Your task to perform on an android device: find which apps use the phone's location Image 0: 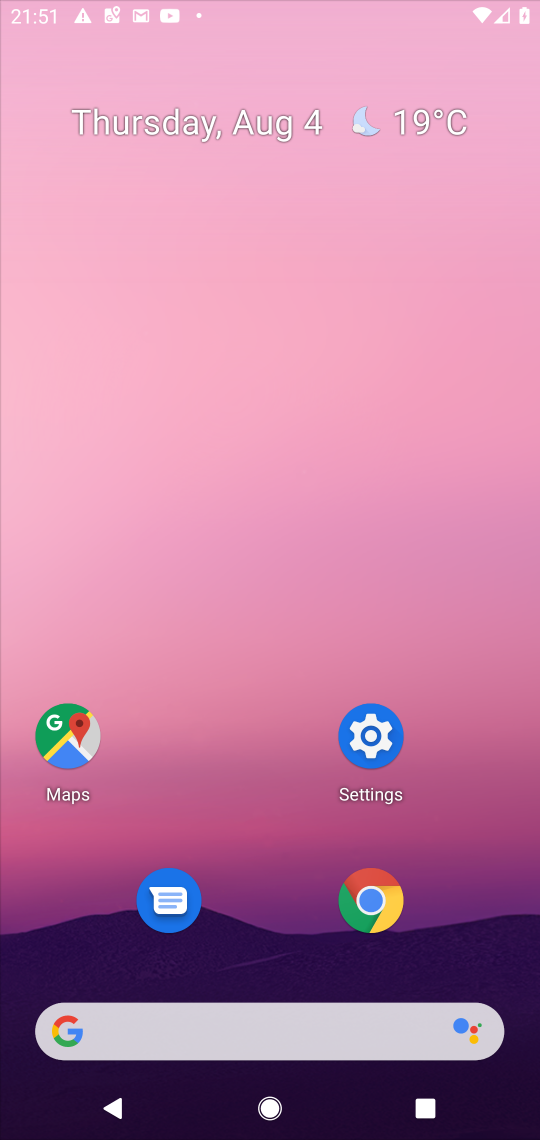
Step 0: press home button
Your task to perform on an android device: find which apps use the phone's location Image 1: 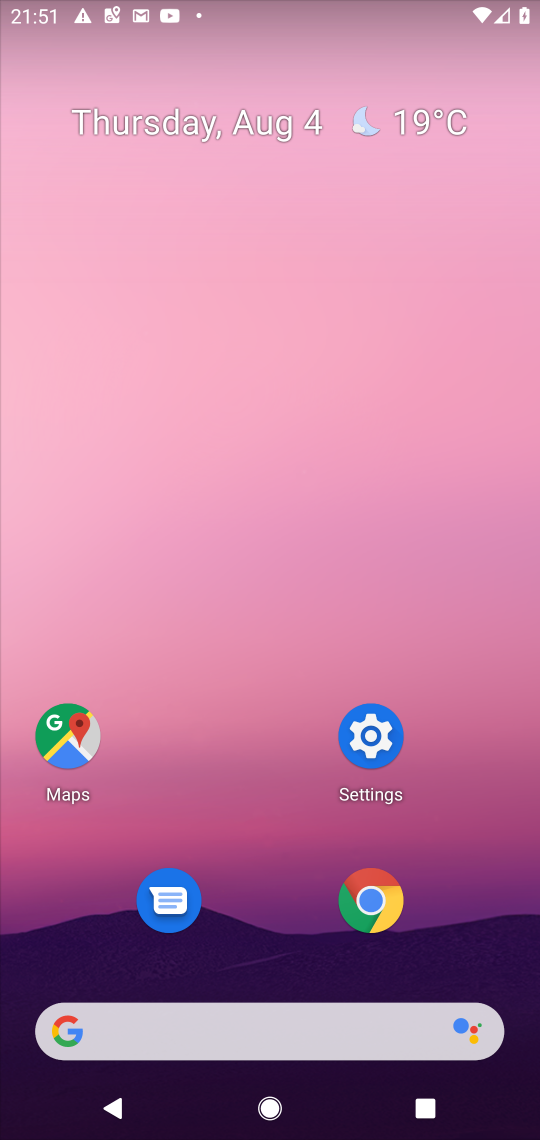
Step 1: click (373, 730)
Your task to perform on an android device: find which apps use the phone's location Image 2: 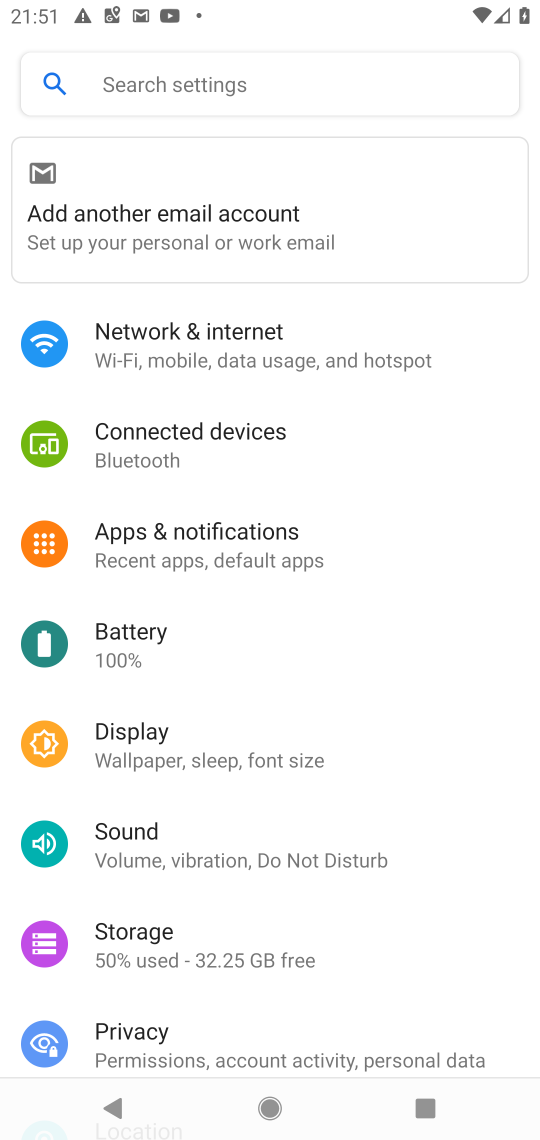
Step 2: drag from (253, 971) to (369, 243)
Your task to perform on an android device: find which apps use the phone's location Image 3: 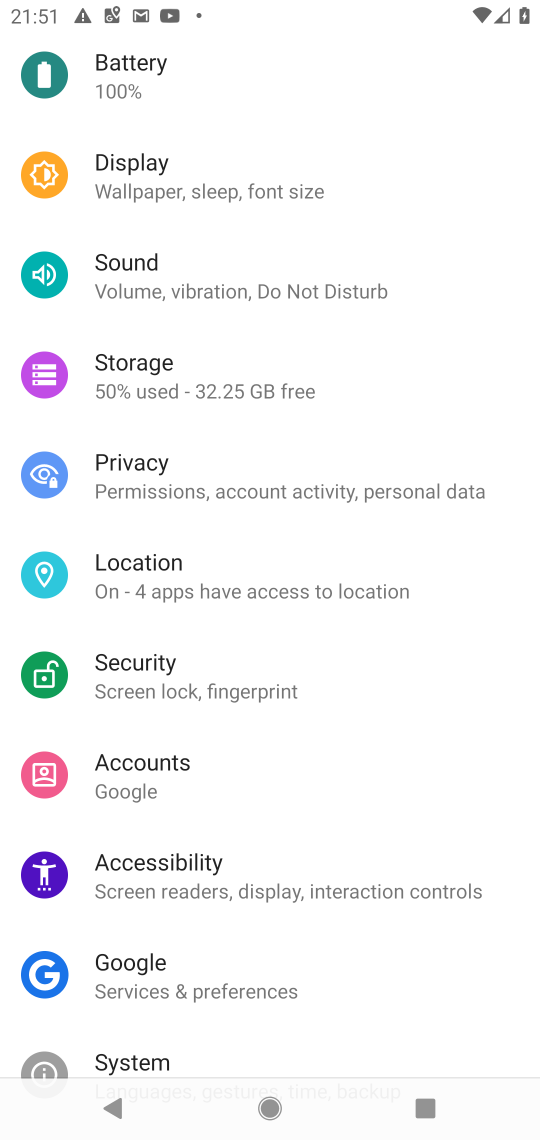
Step 3: click (204, 582)
Your task to perform on an android device: find which apps use the phone's location Image 4: 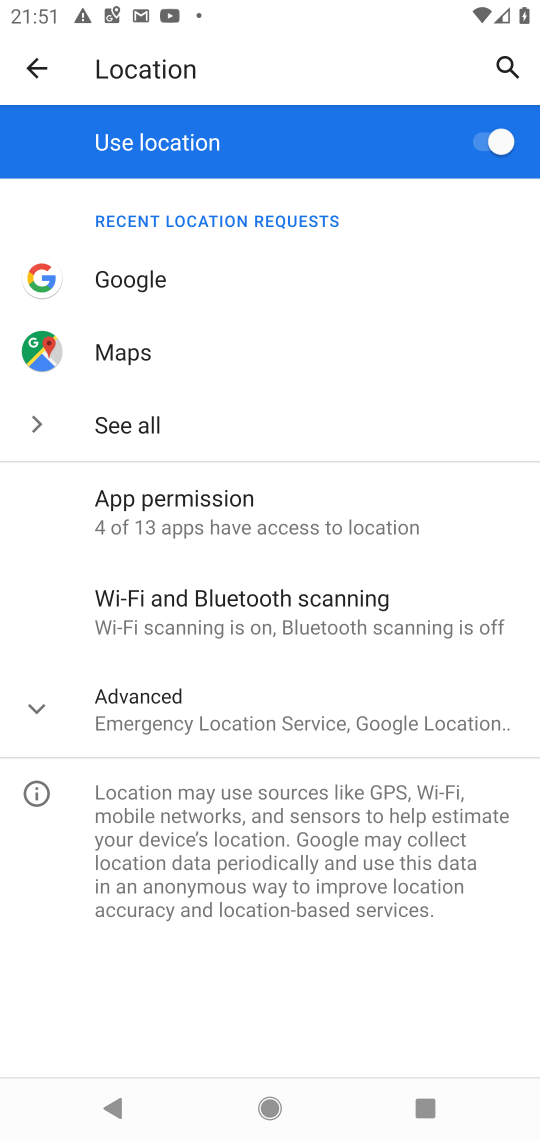
Step 4: click (182, 516)
Your task to perform on an android device: find which apps use the phone's location Image 5: 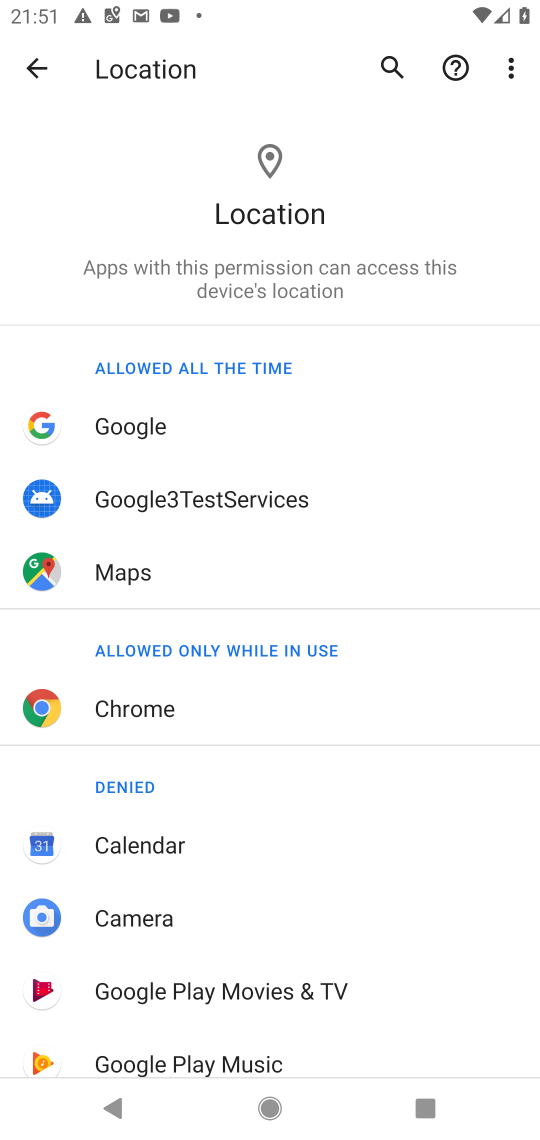
Step 5: drag from (273, 838) to (478, 180)
Your task to perform on an android device: find which apps use the phone's location Image 6: 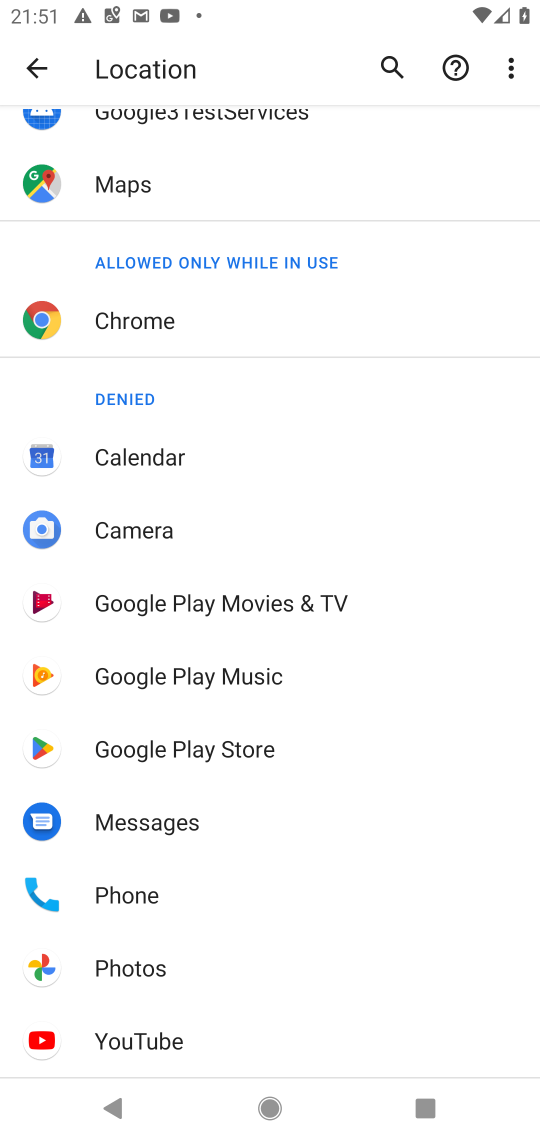
Step 6: click (154, 901)
Your task to perform on an android device: find which apps use the phone's location Image 7: 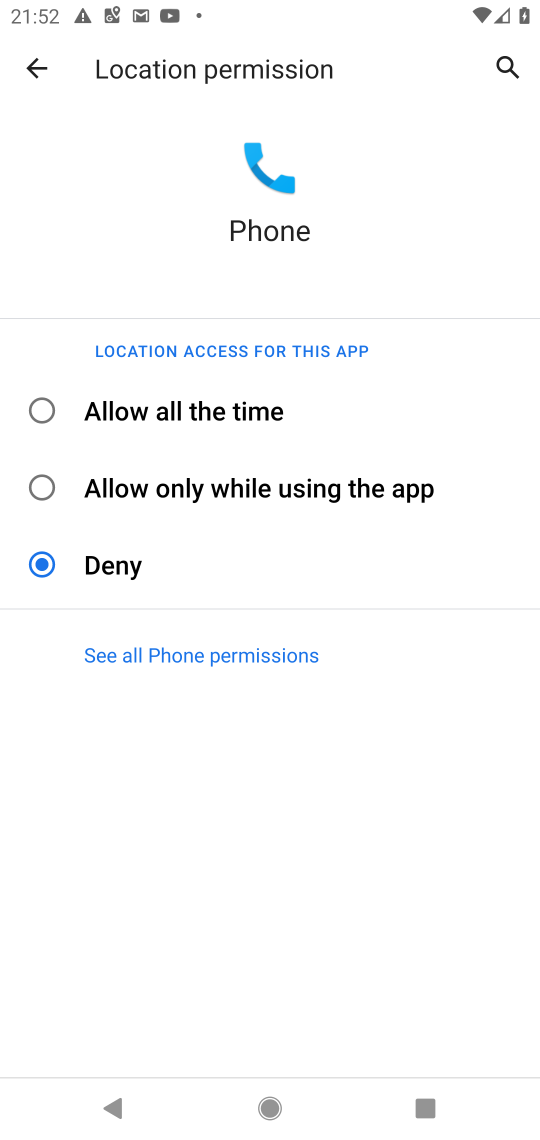
Step 7: task complete